Your task to perform on an android device: How do I get to the nearest T-Mobile Store? Image 0: 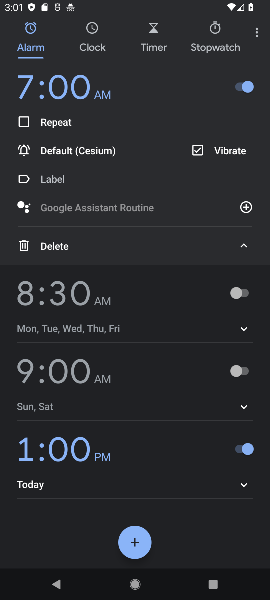
Step 0: press home button
Your task to perform on an android device: How do I get to the nearest T-Mobile Store? Image 1: 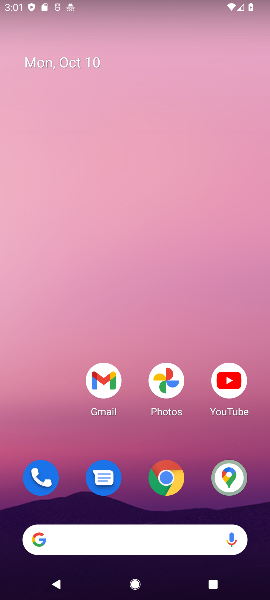
Step 1: click (165, 475)
Your task to perform on an android device: How do I get to the nearest T-Mobile Store? Image 2: 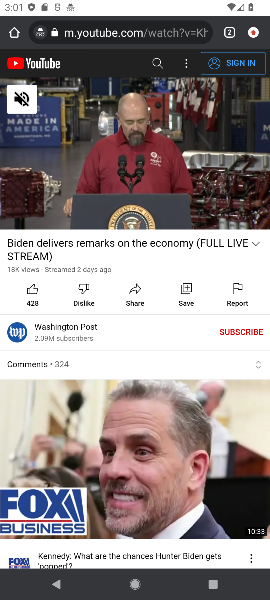
Step 2: click (124, 36)
Your task to perform on an android device: How do I get to the nearest T-Mobile Store? Image 3: 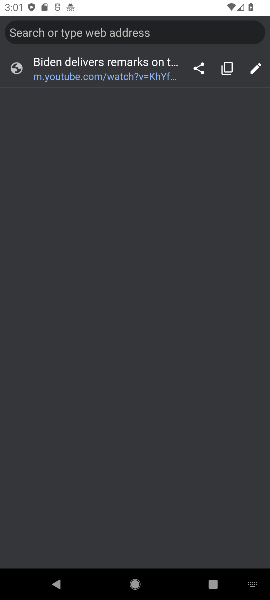
Step 3: type "How do I get to the nearest T-Mobile Store?"
Your task to perform on an android device: How do I get to the nearest T-Mobile Store? Image 4: 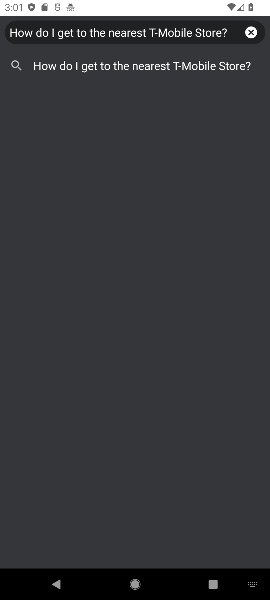
Step 4: click (156, 62)
Your task to perform on an android device: How do I get to the nearest T-Mobile Store? Image 5: 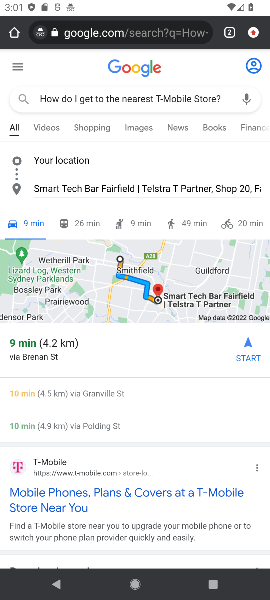
Step 5: task complete